Your task to perform on an android device: check data usage Image 0: 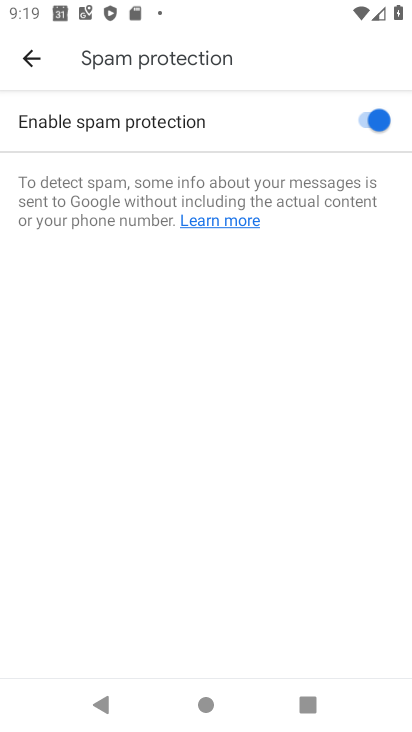
Step 0: press home button
Your task to perform on an android device: check data usage Image 1: 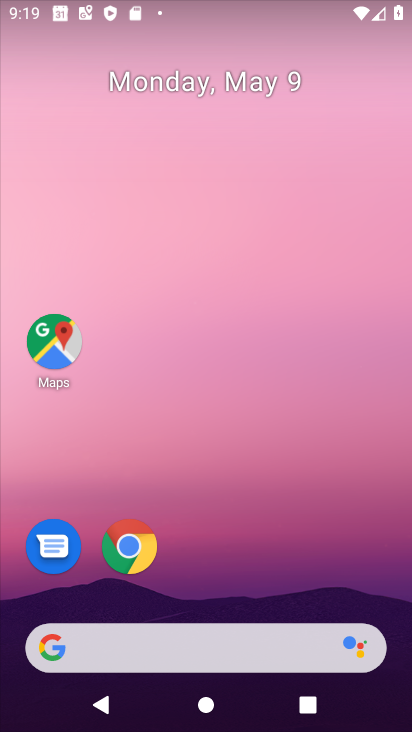
Step 1: drag from (259, 705) to (323, 106)
Your task to perform on an android device: check data usage Image 2: 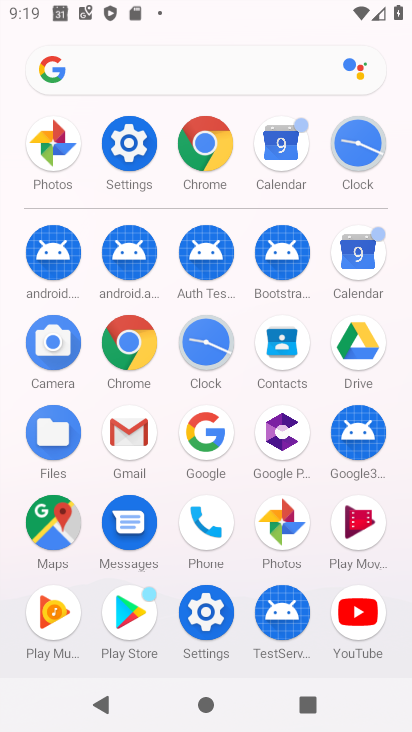
Step 2: click (129, 164)
Your task to perform on an android device: check data usage Image 3: 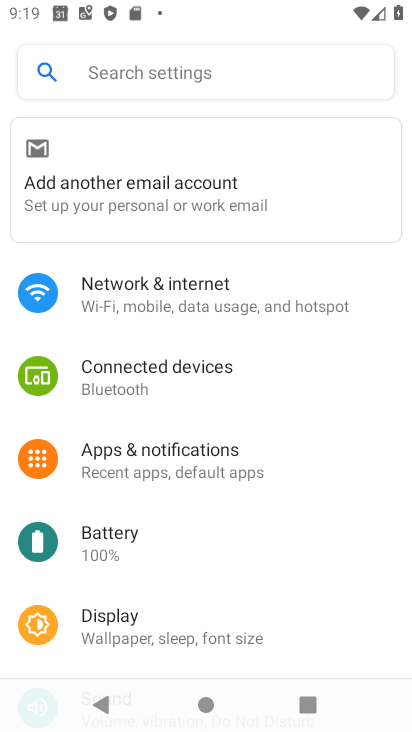
Step 3: click (172, 310)
Your task to perform on an android device: check data usage Image 4: 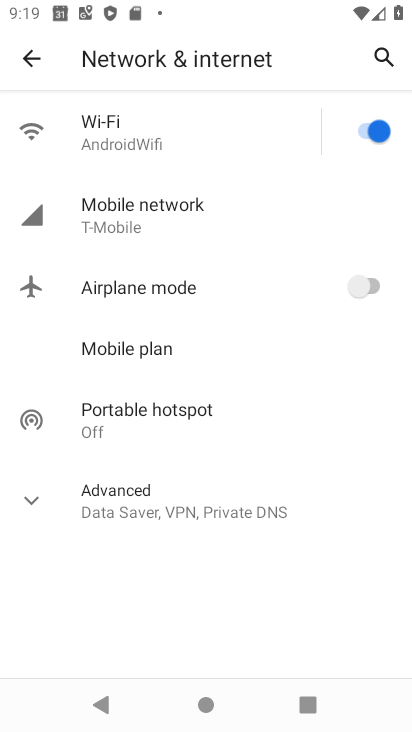
Step 4: click (195, 213)
Your task to perform on an android device: check data usage Image 5: 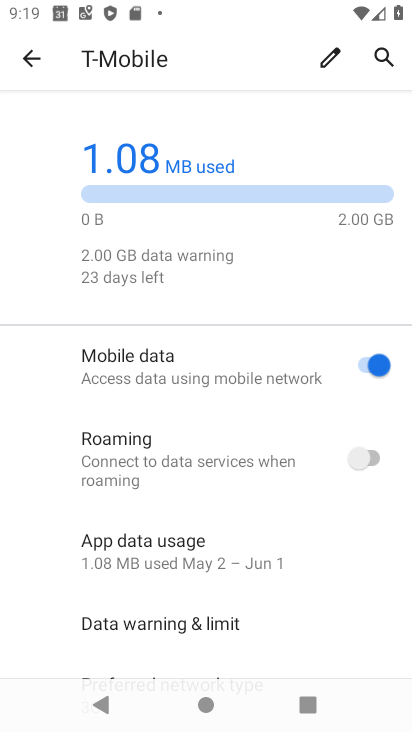
Step 5: task complete